Your task to perform on an android device: Search for vegetarian restaurants on Maps Image 0: 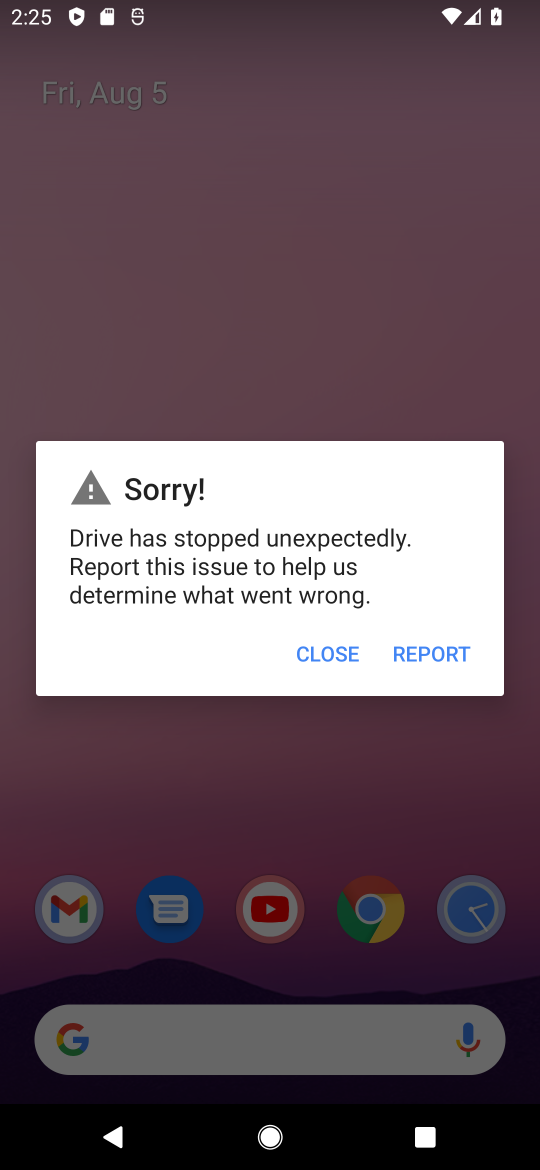
Step 0: click (332, 671)
Your task to perform on an android device: Search for vegetarian restaurants on Maps Image 1: 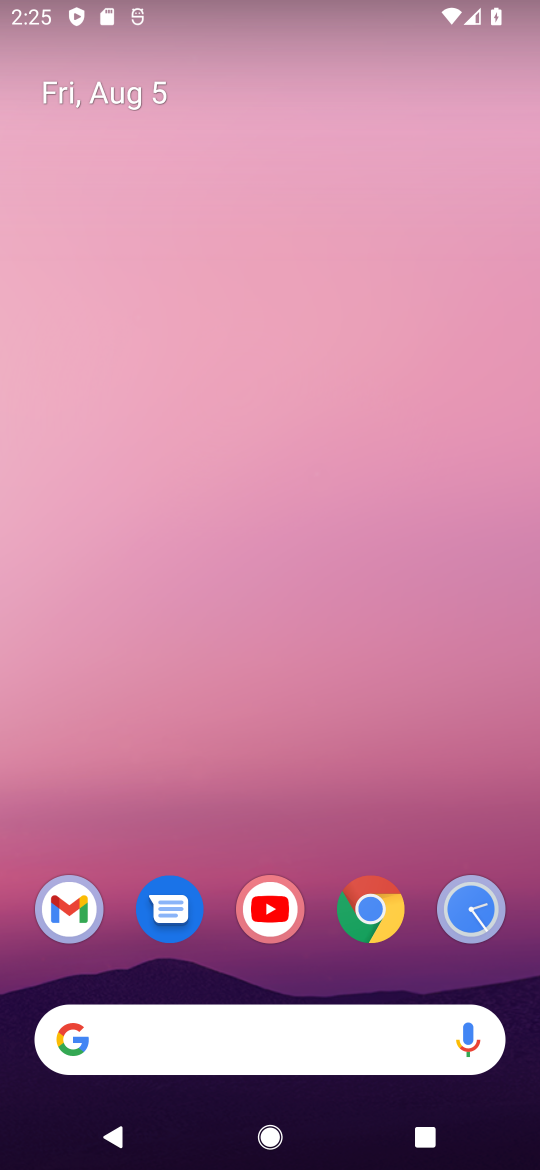
Step 1: press home button
Your task to perform on an android device: Search for vegetarian restaurants on Maps Image 2: 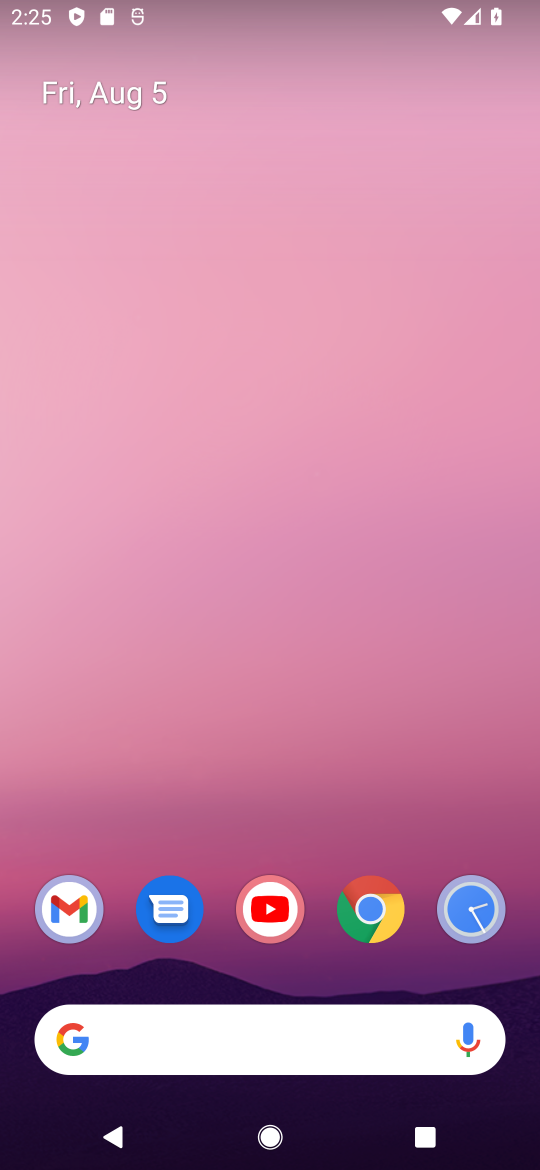
Step 2: drag from (300, 983) to (300, 297)
Your task to perform on an android device: Search for vegetarian restaurants on Maps Image 3: 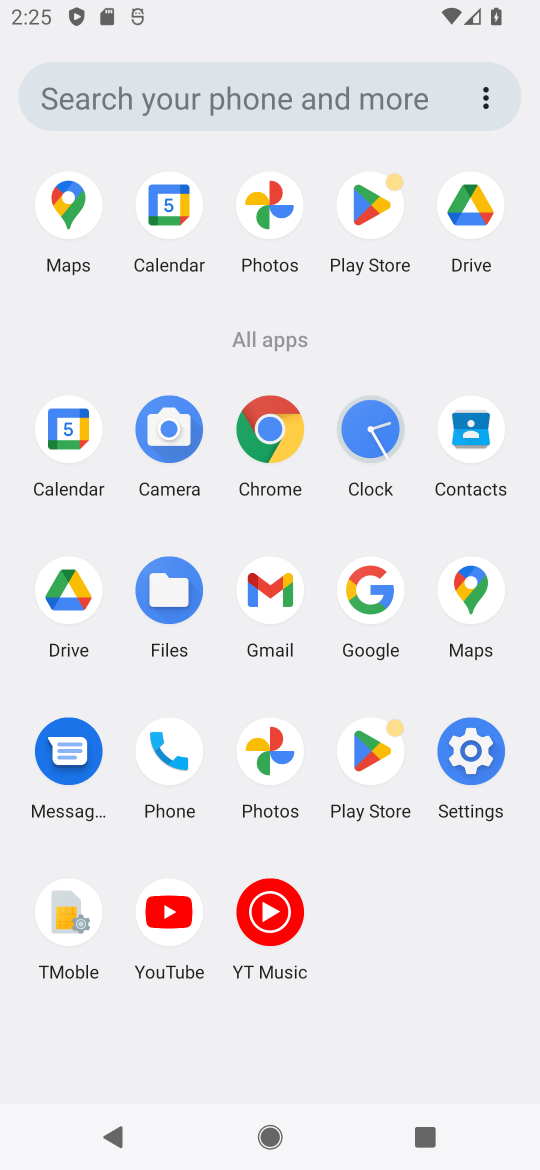
Step 3: click (459, 585)
Your task to perform on an android device: Search for vegetarian restaurants on Maps Image 4: 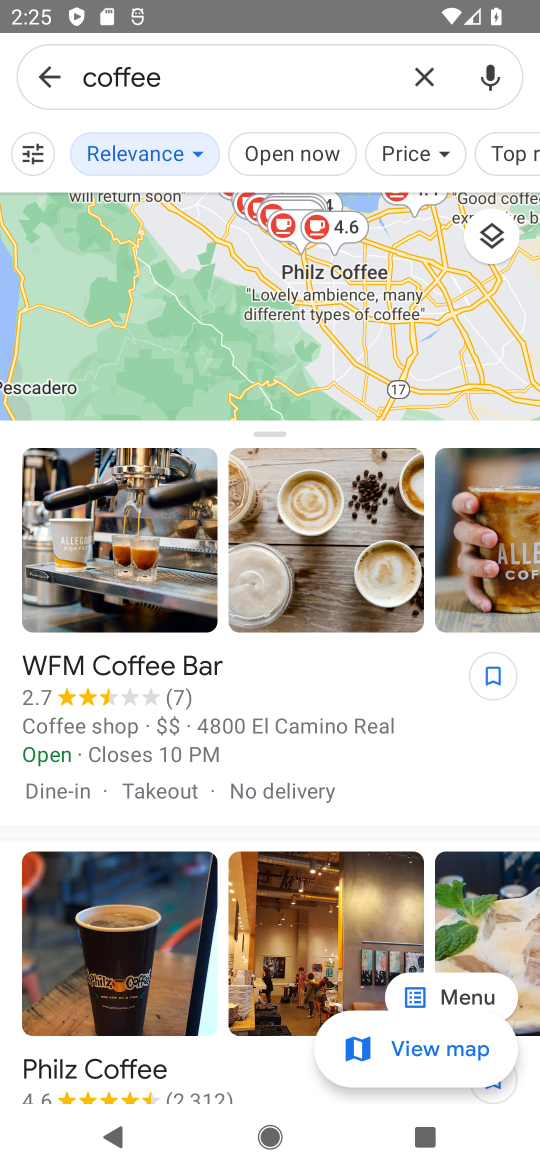
Step 4: click (410, 82)
Your task to perform on an android device: Search for vegetarian restaurants on Maps Image 5: 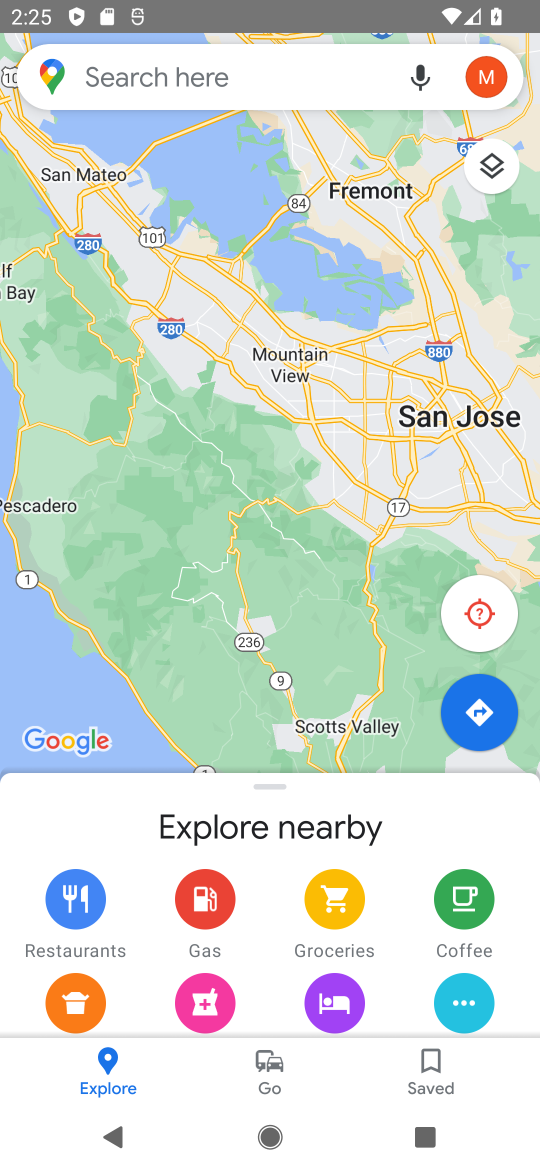
Step 5: click (305, 76)
Your task to perform on an android device: Search for vegetarian restaurants on Maps Image 6: 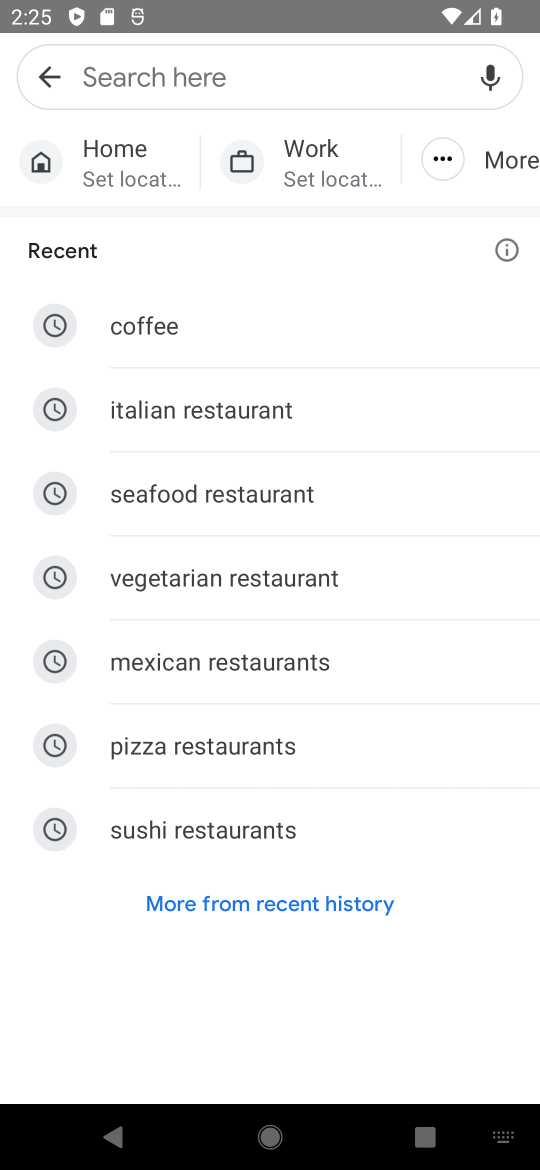
Step 6: click (357, 586)
Your task to perform on an android device: Search for vegetarian restaurants on Maps Image 7: 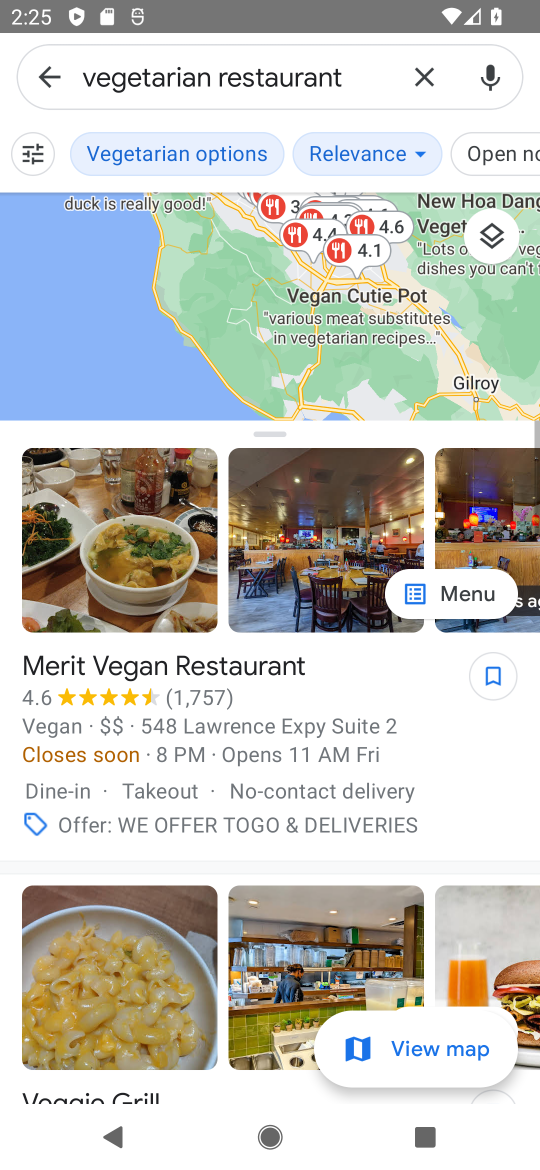
Step 7: task complete